Your task to perform on an android device: open a new tab in the chrome app Image 0: 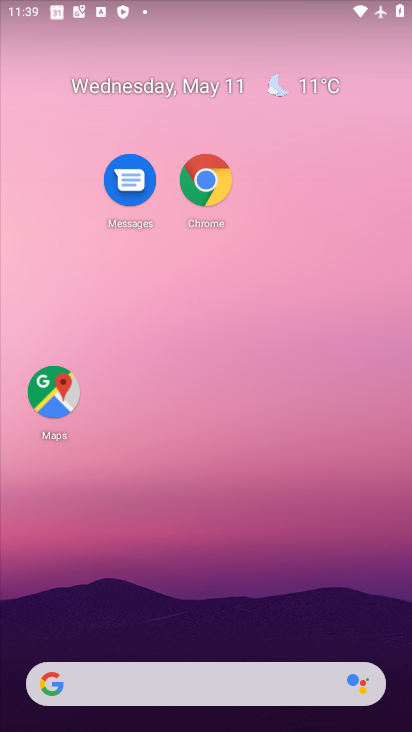
Step 0: drag from (211, 572) to (405, 42)
Your task to perform on an android device: open a new tab in the chrome app Image 1: 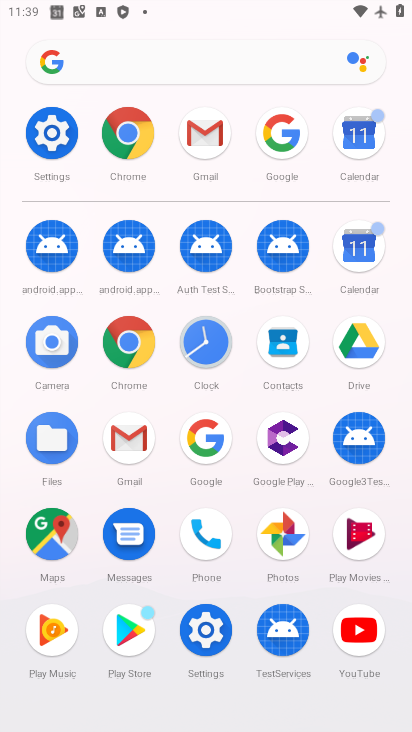
Step 1: click (129, 356)
Your task to perform on an android device: open a new tab in the chrome app Image 2: 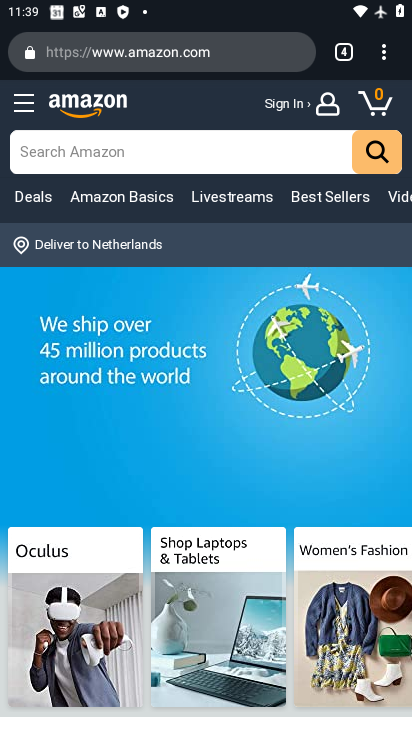
Step 2: click (347, 66)
Your task to perform on an android device: open a new tab in the chrome app Image 3: 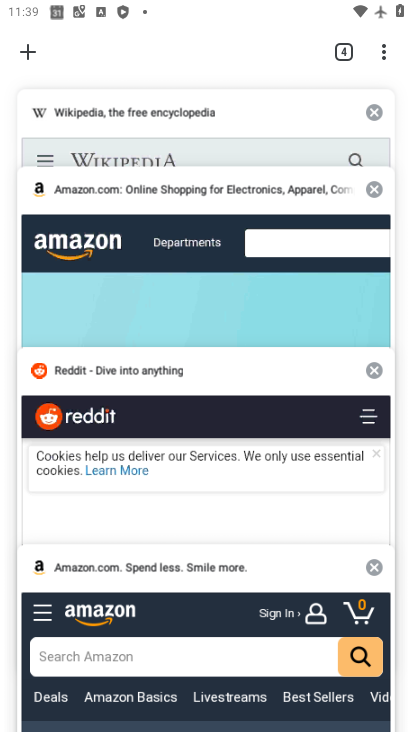
Step 3: click (22, 64)
Your task to perform on an android device: open a new tab in the chrome app Image 4: 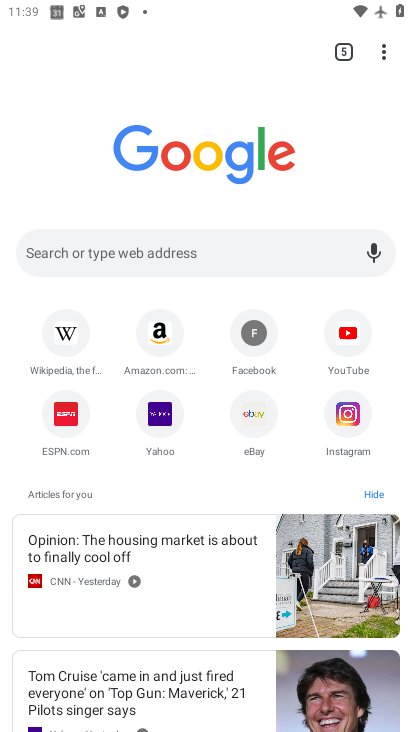
Step 4: task complete